Your task to perform on an android device: Open Reddit.com Image 0: 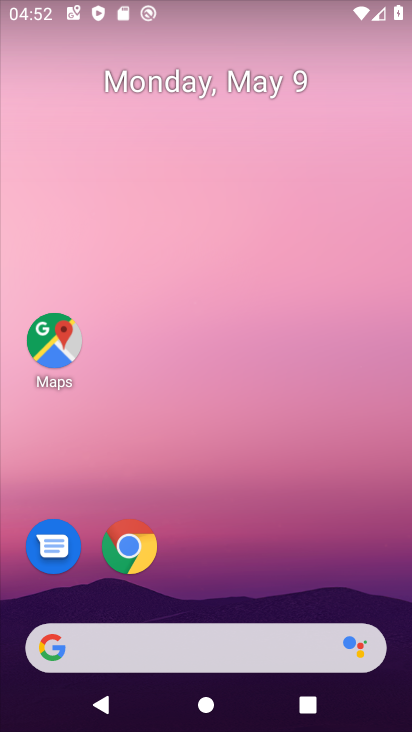
Step 0: click (130, 541)
Your task to perform on an android device: Open Reddit.com Image 1: 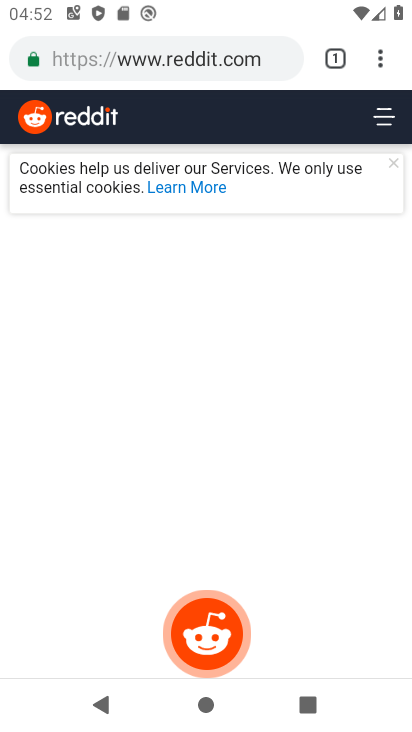
Step 1: click (257, 60)
Your task to perform on an android device: Open Reddit.com Image 2: 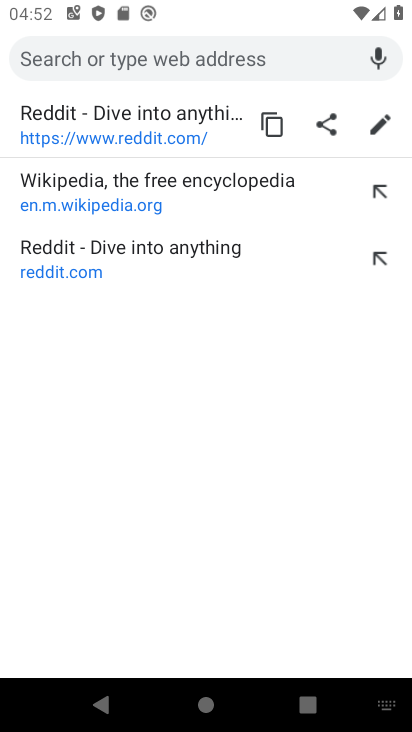
Step 2: type "reddit.com"
Your task to perform on an android device: Open Reddit.com Image 3: 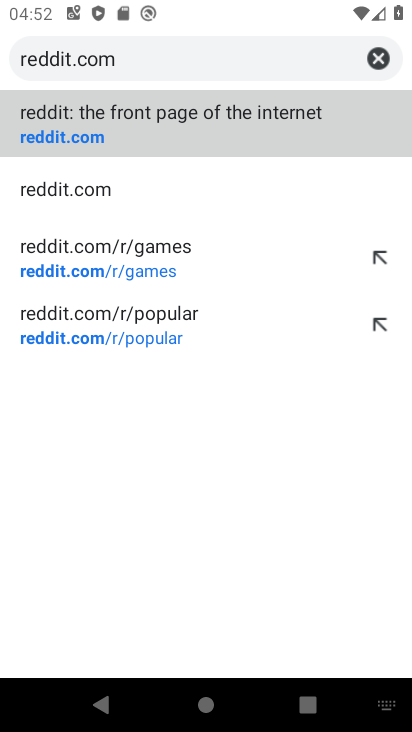
Step 3: click (114, 181)
Your task to perform on an android device: Open Reddit.com Image 4: 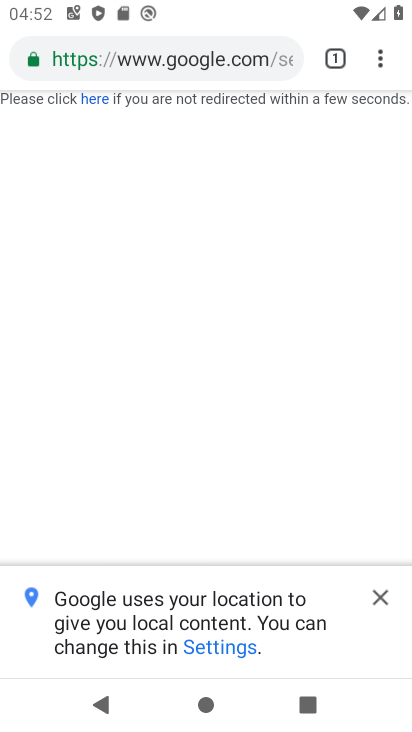
Step 4: click (392, 597)
Your task to perform on an android device: Open Reddit.com Image 5: 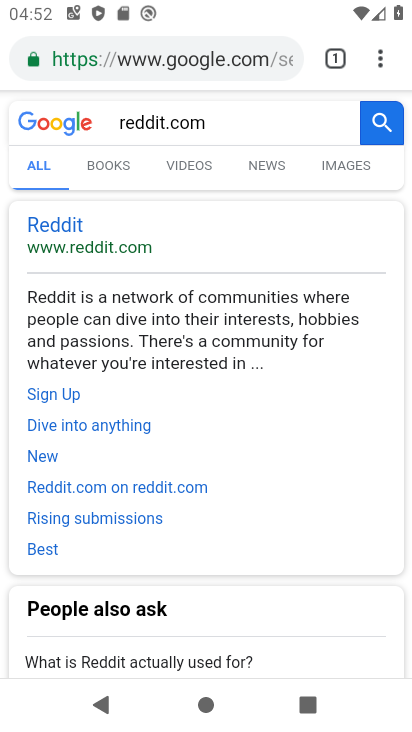
Step 5: task complete